Your task to perform on an android device: What's the weather going to be this weekend? Image 0: 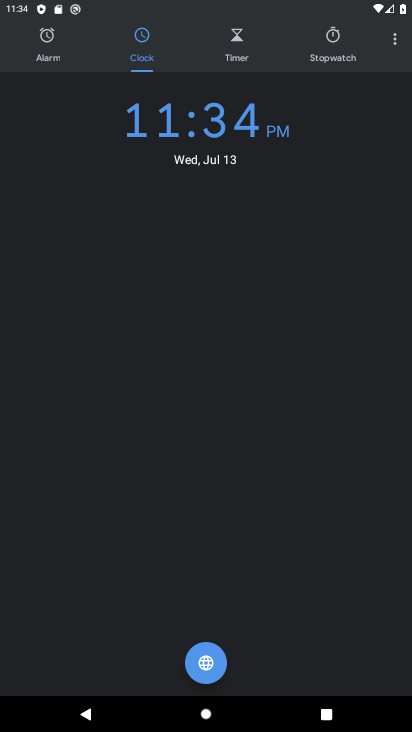
Step 0: press home button
Your task to perform on an android device: What's the weather going to be this weekend? Image 1: 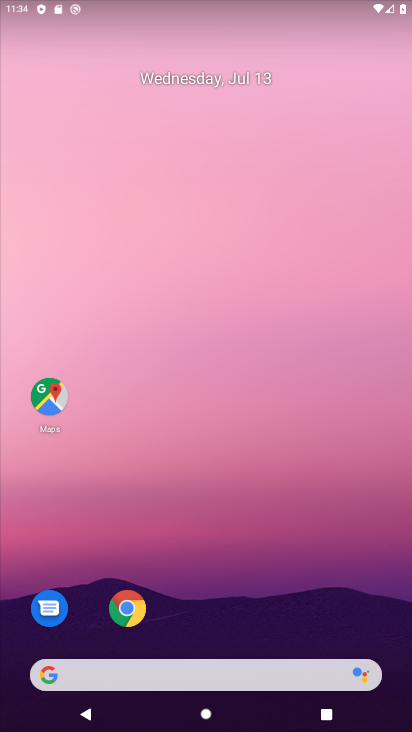
Step 1: click (176, 672)
Your task to perform on an android device: What's the weather going to be this weekend? Image 2: 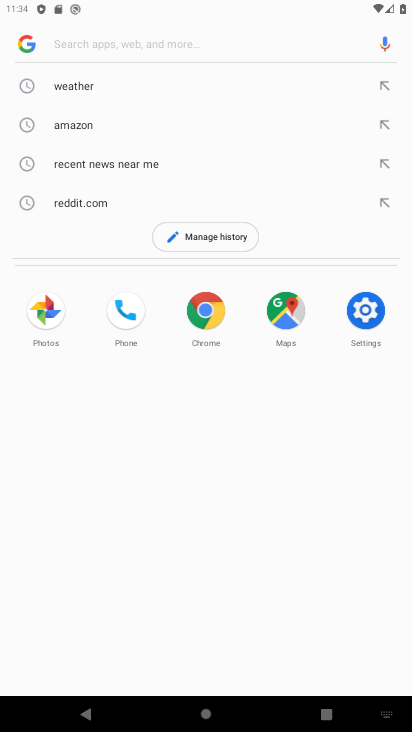
Step 2: click (83, 88)
Your task to perform on an android device: What's the weather going to be this weekend? Image 3: 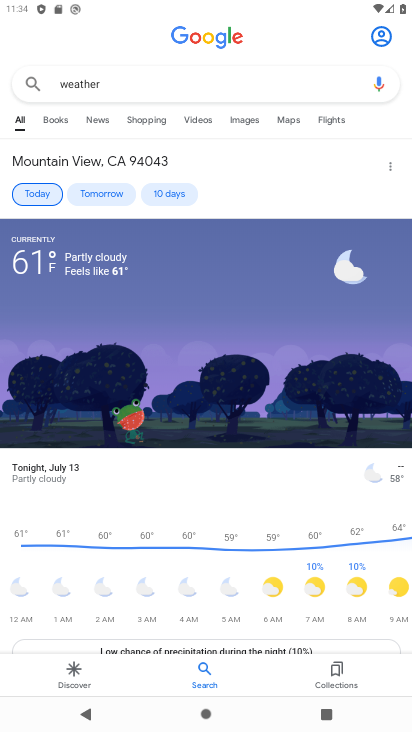
Step 3: task complete